Your task to perform on an android device: uninstall "Lyft - Rideshare, Bikes, Scooters & Transit" Image 0: 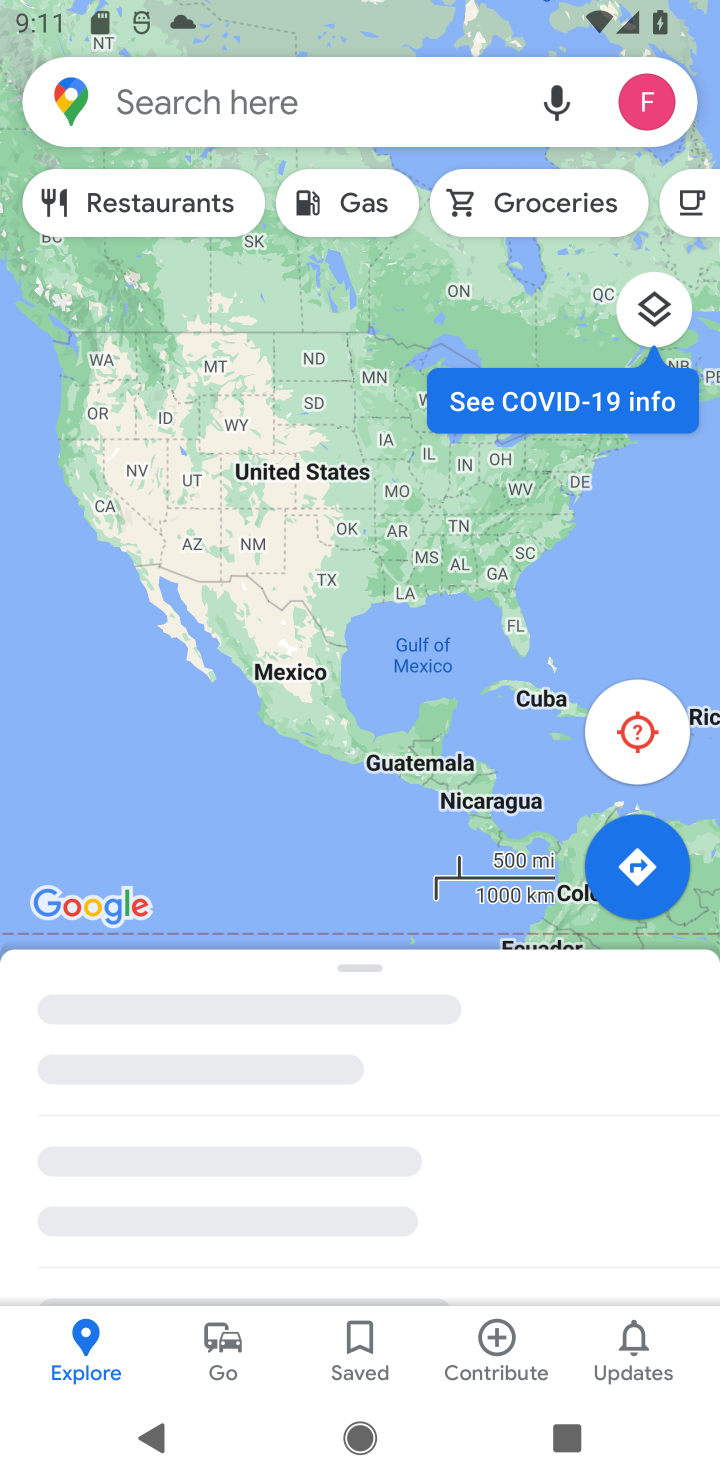
Step 0: press home button
Your task to perform on an android device: uninstall "Lyft - Rideshare, Bikes, Scooters & Transit" Image 1: 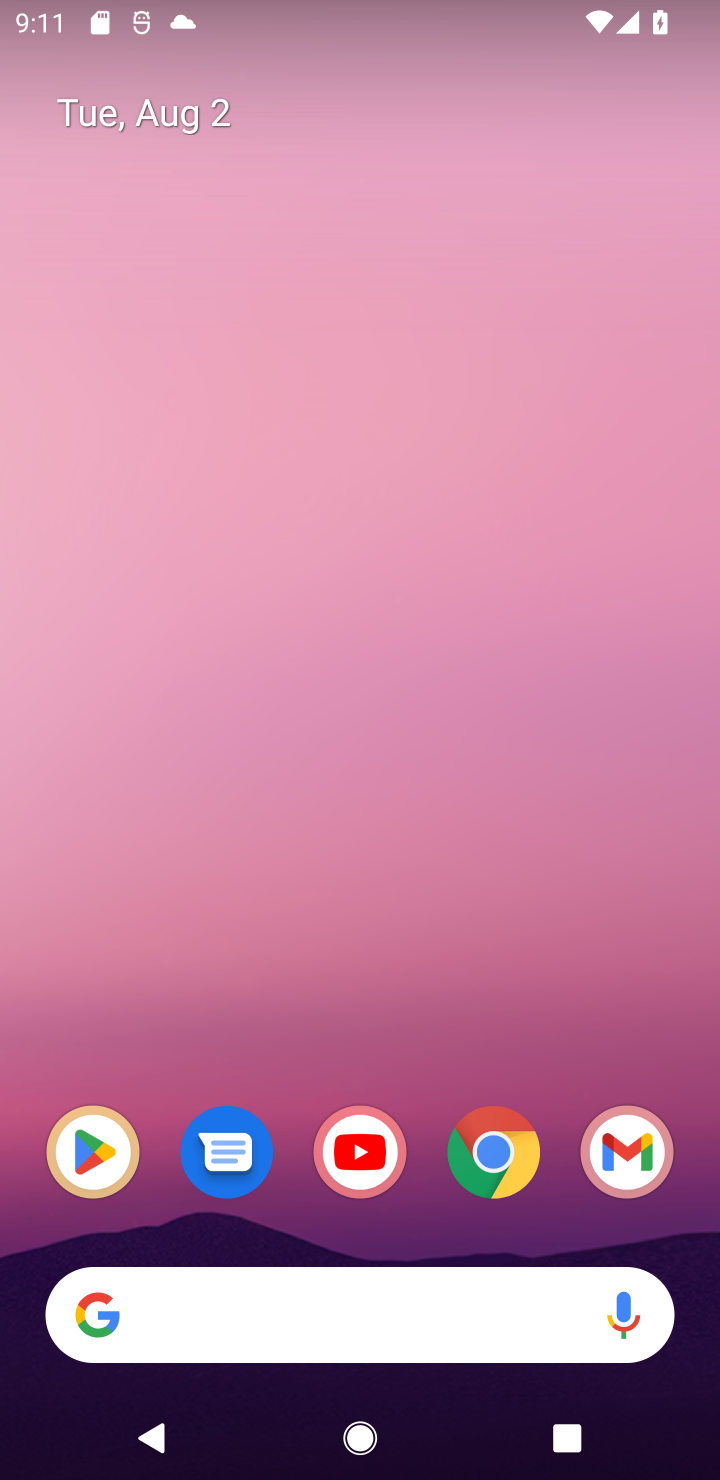
Step 1: click (86, 1170)
Your task to perform on an android device: uninstall "Lyft - Rideshare, Bikes, Scooters & Transit" Image 2: 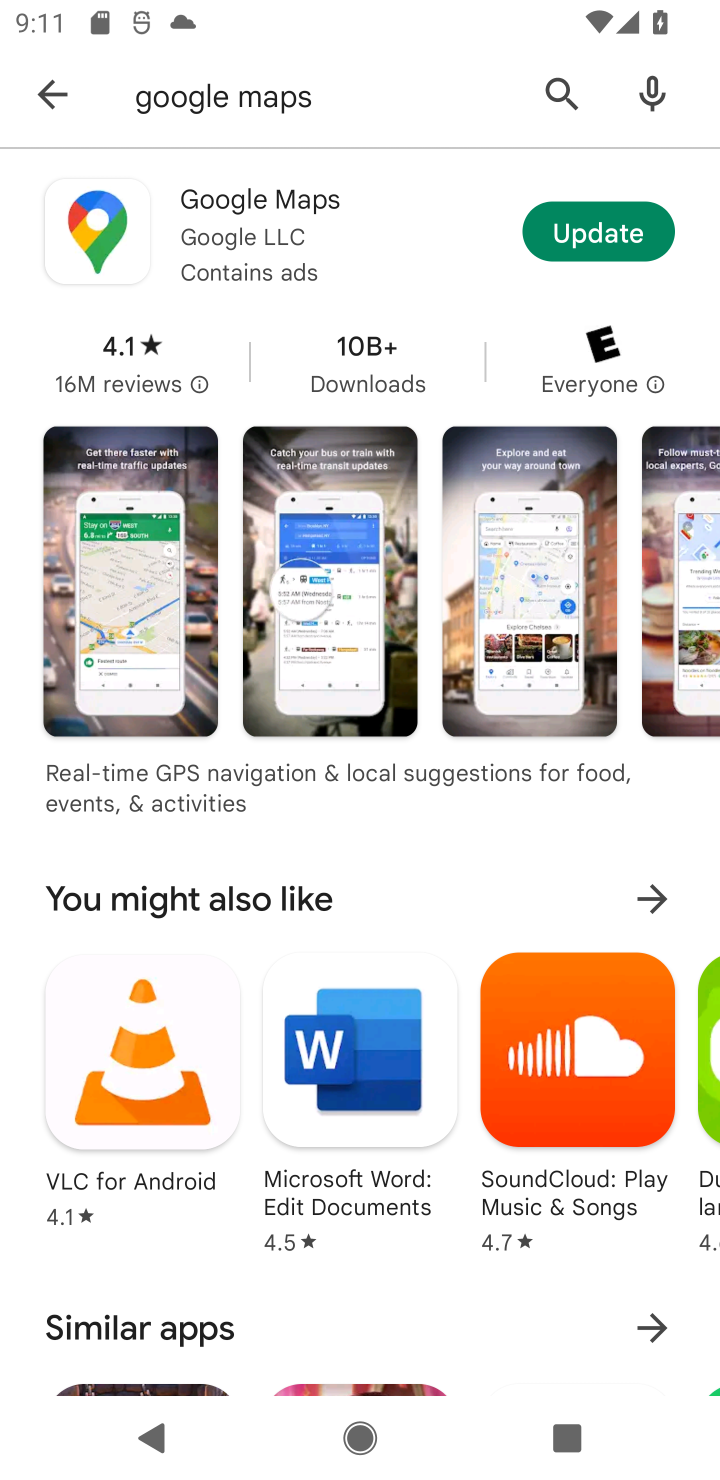
Step 2: click (49, 89)
Your task to perform on an android device: uninstall "Lyft - Rideshare, Bikes, Scooters & Transit" Image 3: 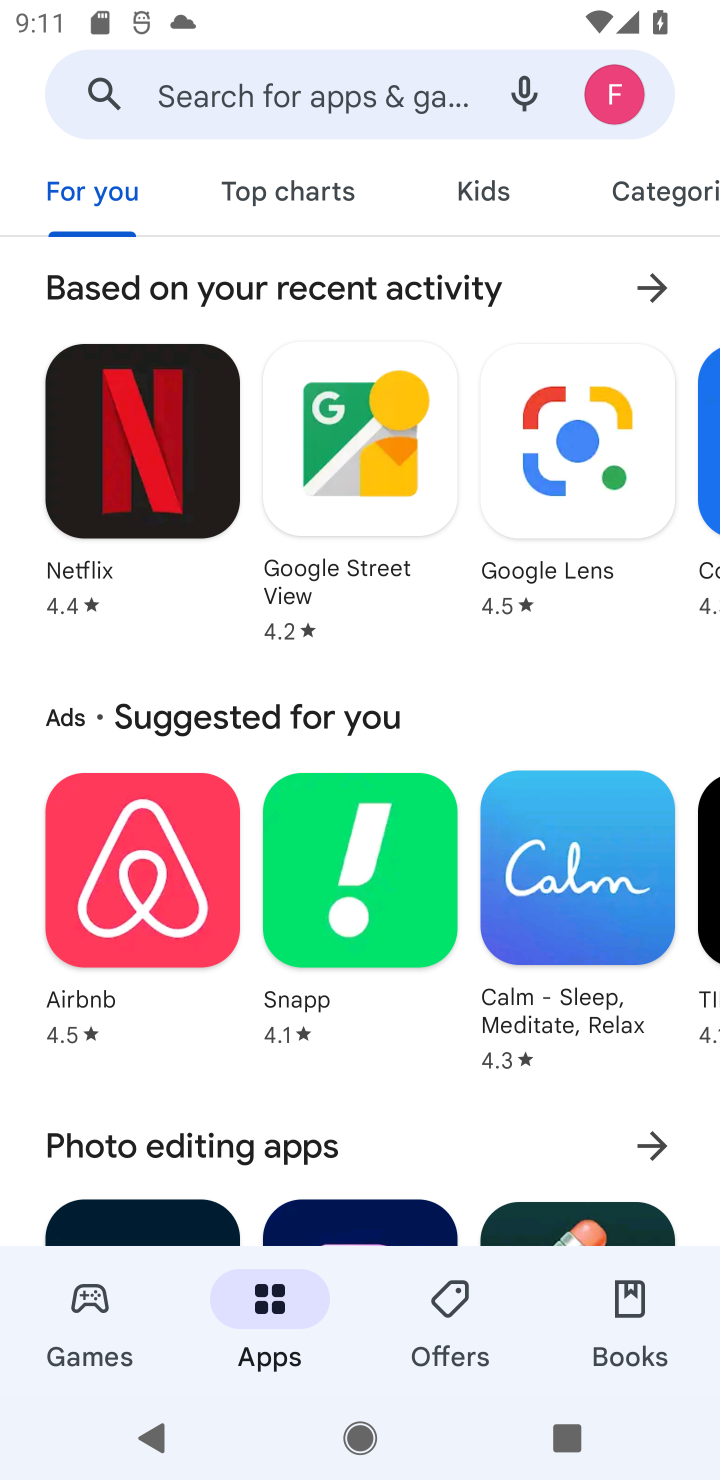
Step 3: click (317, 62)
Your task to perform on an android device: uninstall "Lyft - Rideshare, Bikes, Scooters & Transit" Image 4: 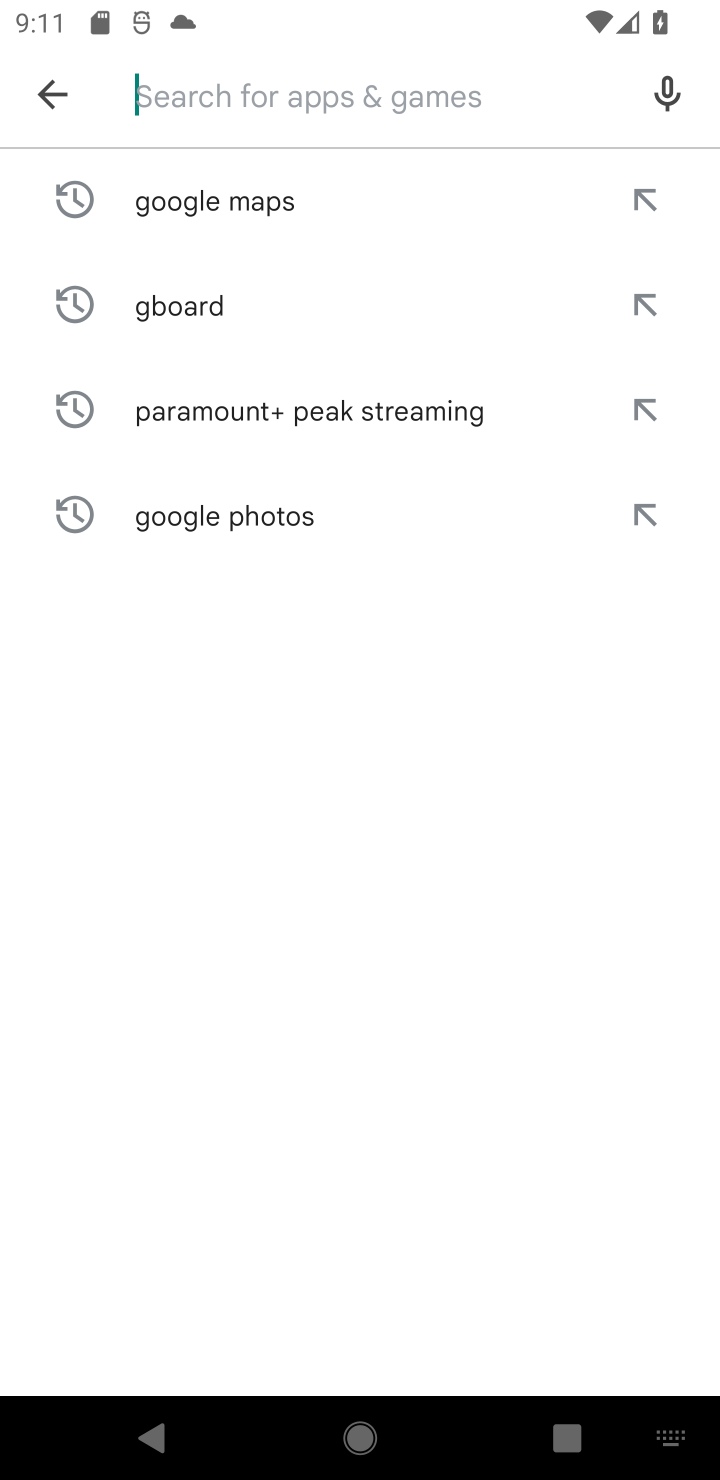
Step 4: type "Lyft"
Your task to perform on an android device: uninstall "Lyft - Rideshare, Bikes, Scooters & Transit" Image 5: 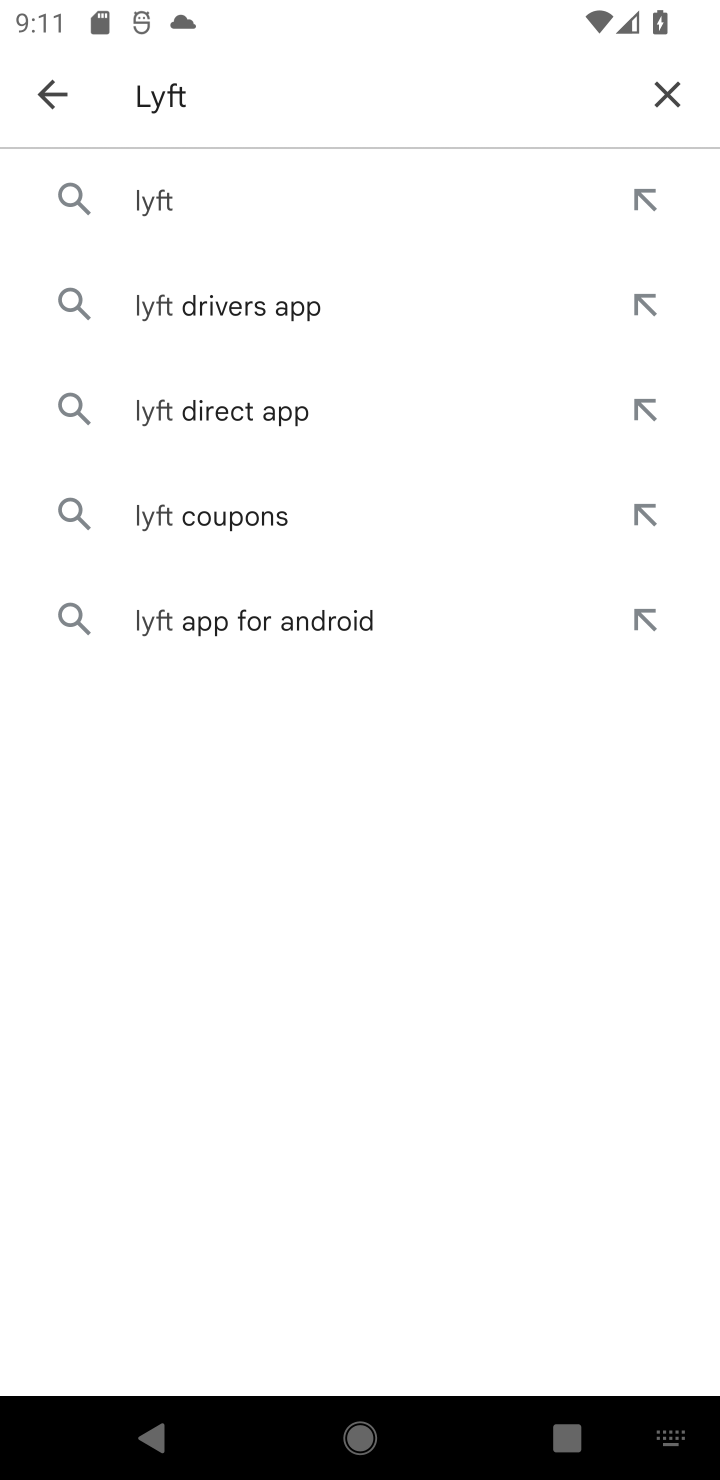
Step 5: click (155, 202)
Your task to perform on an android device: uninstall "Lyft - Rideshare, Bikes, Scooters & Transit" Image 6: 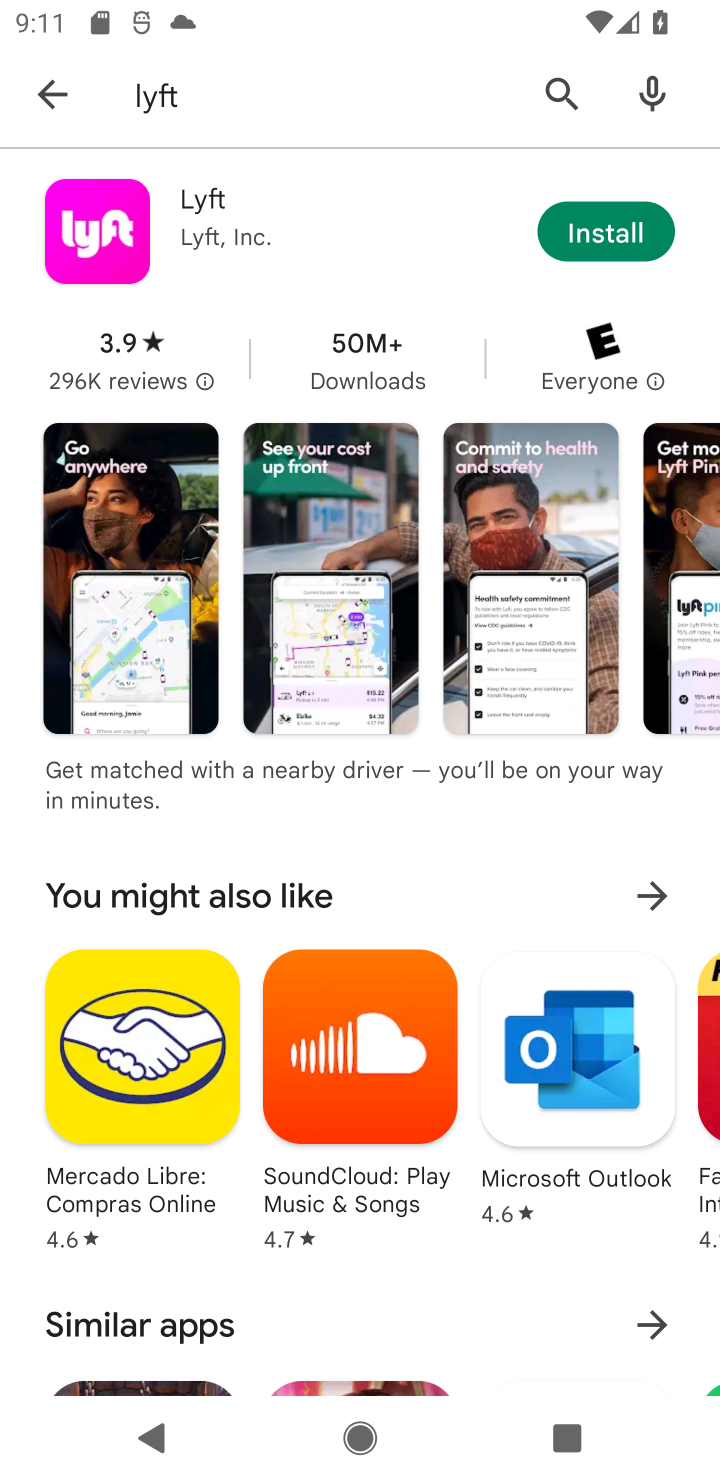
Step 6: task complete